Your task to perform on an android device: set the timer Image 0: 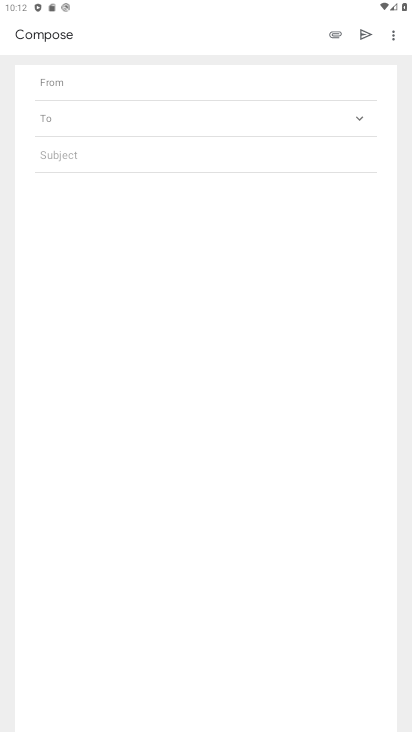
Step 0: press home button
Your task to perform on an android device: set the timer Image 1: 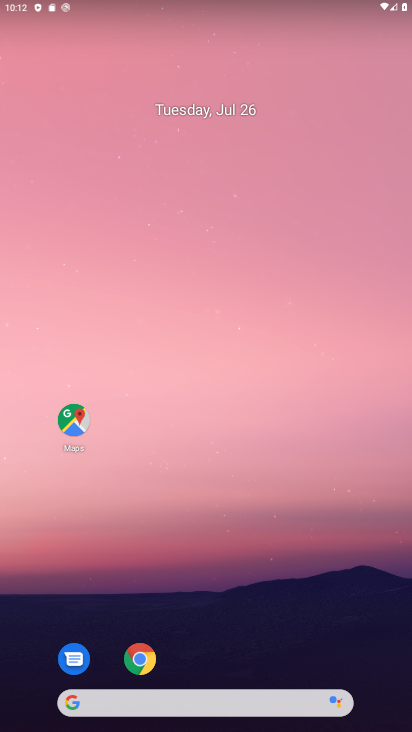
Step 1: drag from (199, 413) to (207, 147)
Your task to perform on an android device: set the timer Image 2: 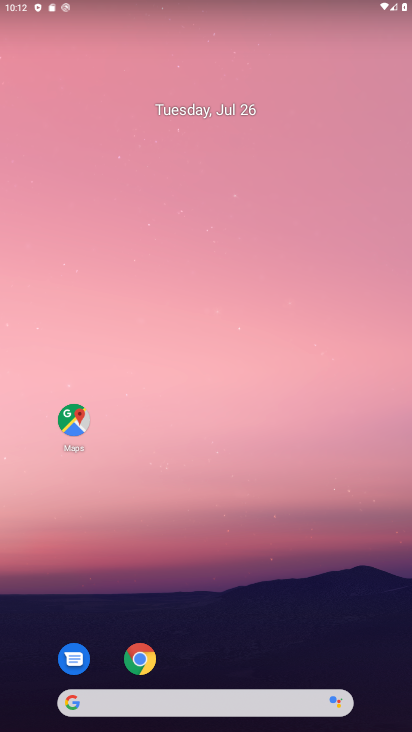
Step 2: drag from (387, 707) to (355, 174)
Your task to perform on an android device: set the timer Image 3: 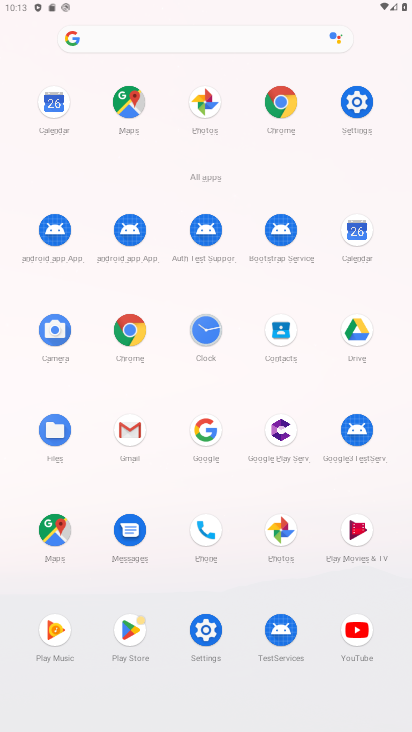
Step 3: click (198, 334)
Your task to perform on an android device: set the timer Image 4: 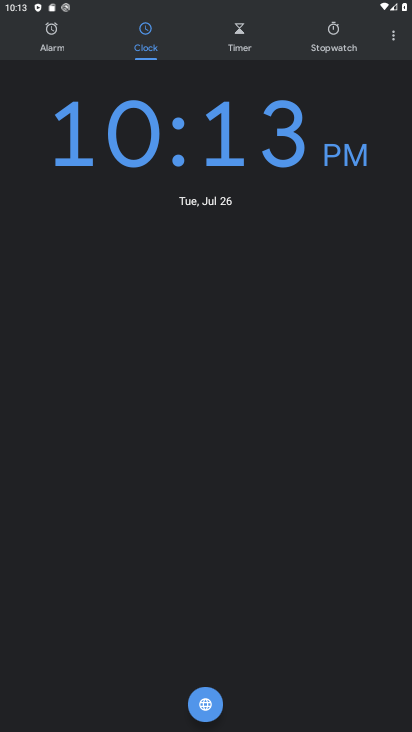
Step 4: click (235, 48)
Your task to perform on an android device: set the timer Image 5: 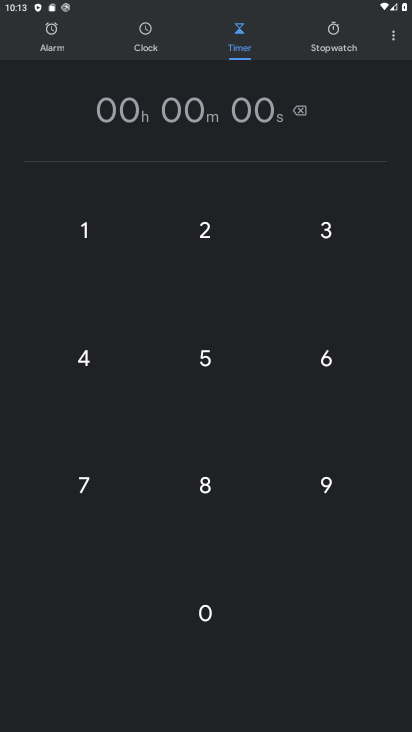
Step 5: click (201, 502)
Your task to perform on an android device: set the timer Image 6: 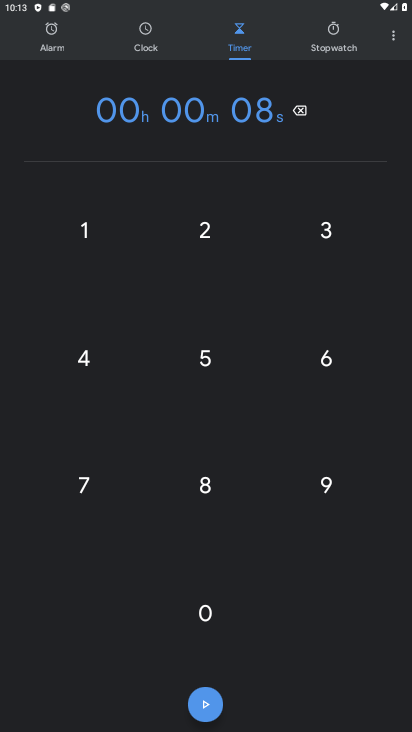
Step 6: click (199, 697)
Your task to perform on an android device: set the timer Image 7: 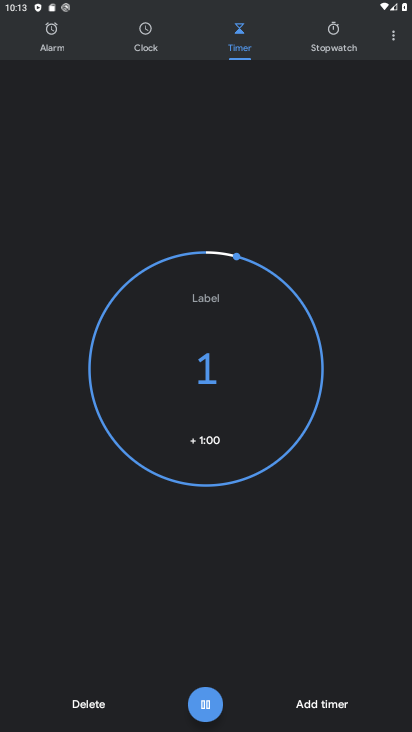
Step 7: task complete